Your task to perform on an android device: set the timer Image 0: 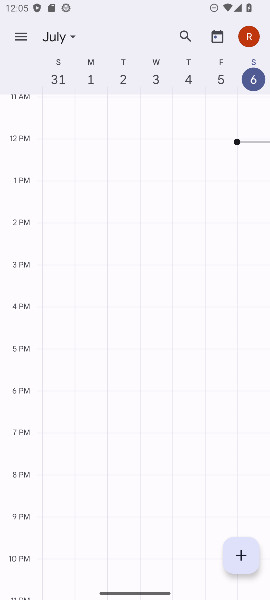
Step 0: press back button
Your task to perform on an android device: set the timer Image 1: 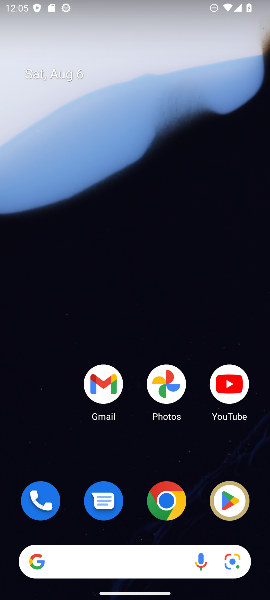
Step 1: click (156, 216)
Your task to perform on an android device: set the timer Image 2: 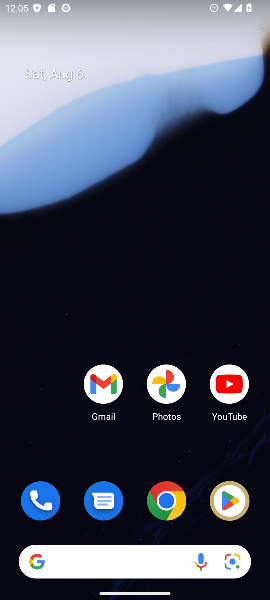
Step 2: drag from (145, 344) to (132, 97)
Your task to perform on an android device: set the timer Image 3: 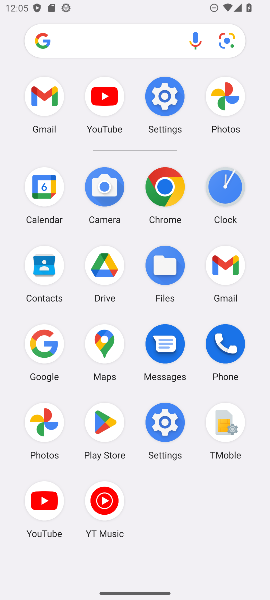
Step 3: click (227, 190)
Your task to perform on an android device: set the timer Image 4: 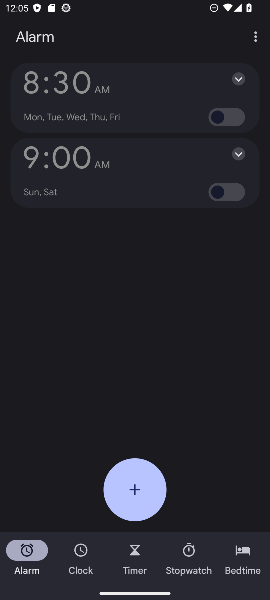
Step 4: click (131, 572)
Your task to perform on an android device: set the timer Image 5: 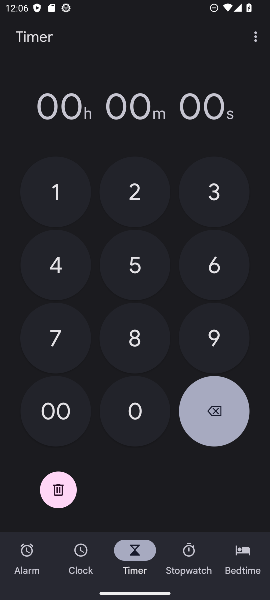
Step 5: click (125, 259)
Your task to perform on an android device: set the timer Image 6: 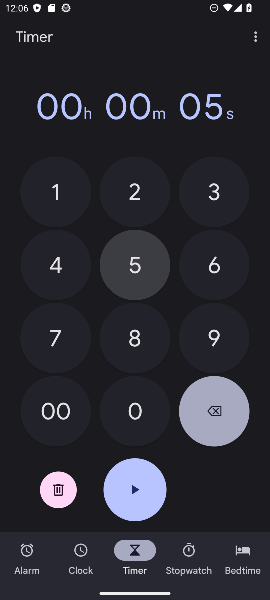
Step 6: click (139, 408)
Your task to perform on an android device: set the timer Image 7: 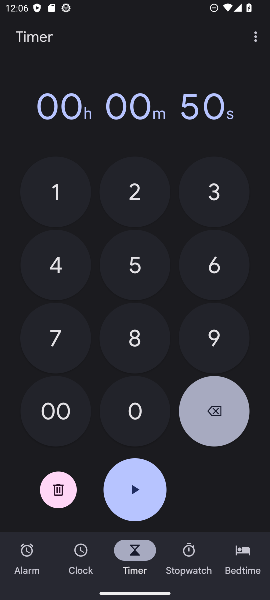
Step 7: click (139, 408)
Your task to perform on an android device: set the timer Image 8: 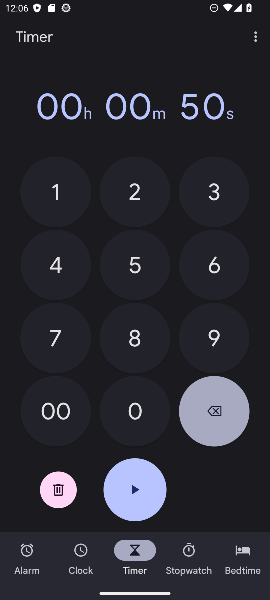
Step 8: click (139, 408)
Your task to perform on an android device: set the timer Image 9: 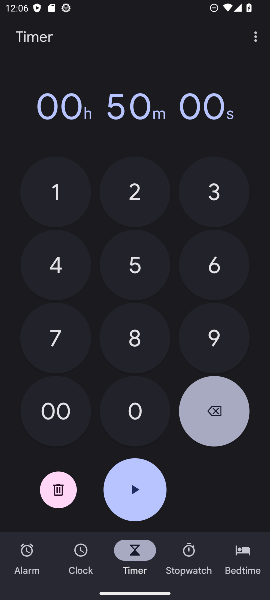
Step 9: click (145, 510)
Your task to perform on an android device: set the timer Image 10: 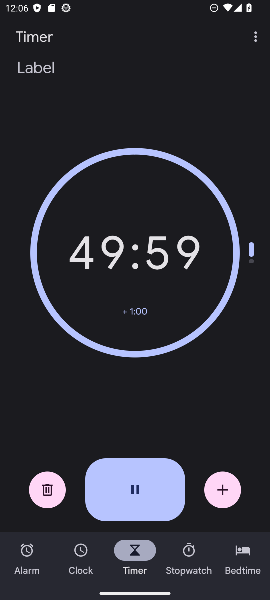
Step 10: task complete